Your task to perform on an android device: stop showing notifications on the lock screen Image 0: 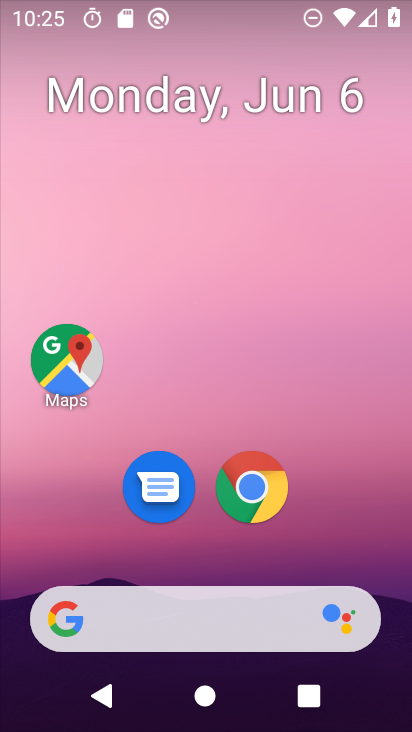
Step 0: drag from (404, 604) to (317, 45)
Your task to perform on an android device: stop showing notifications on the lock screen Image 1: 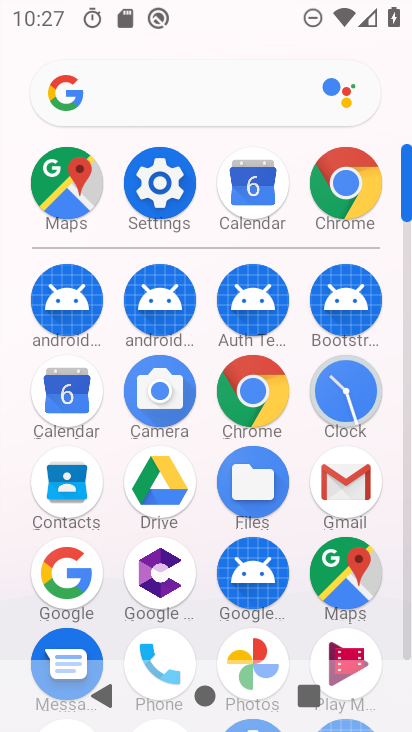
Step 1: click (136, 178)
Your task to perform on an android device: stop showing notifications on the lock screen Image 2: 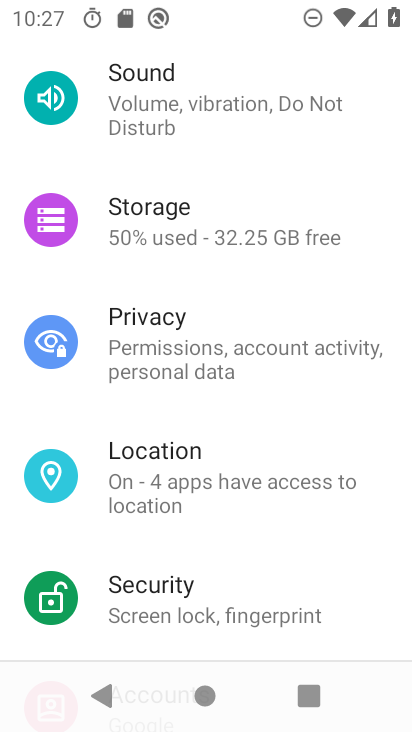
Step 2: drag from (230, 199) to (243, 617)
Your task to perform on an android device: stop showing notifications on the lock screen Image 3: 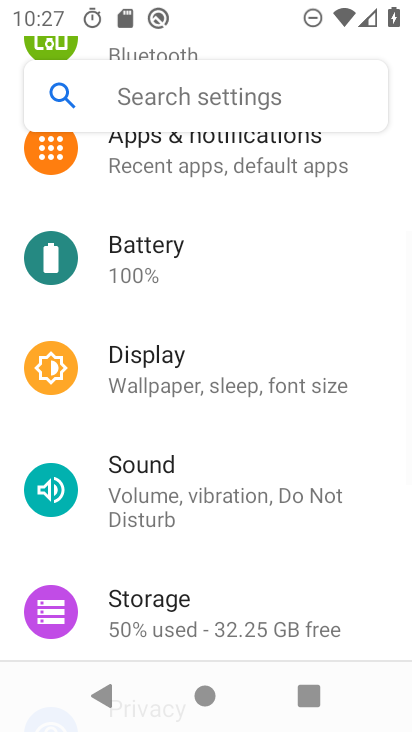
Step 3: drag from (213, 252) to (206, 585)
Your task to perform on an android device: stop showing notifications on the lock screen Image 4: 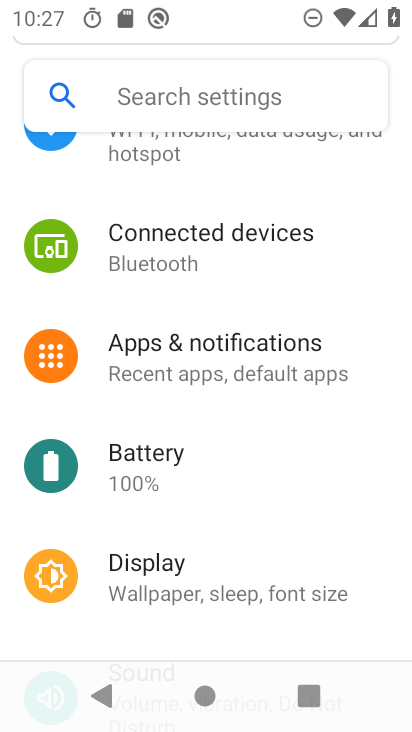
Step 4: click (229, 393)
Your task to perform on an android device: stop showing notifications on the lock screen Image 5: 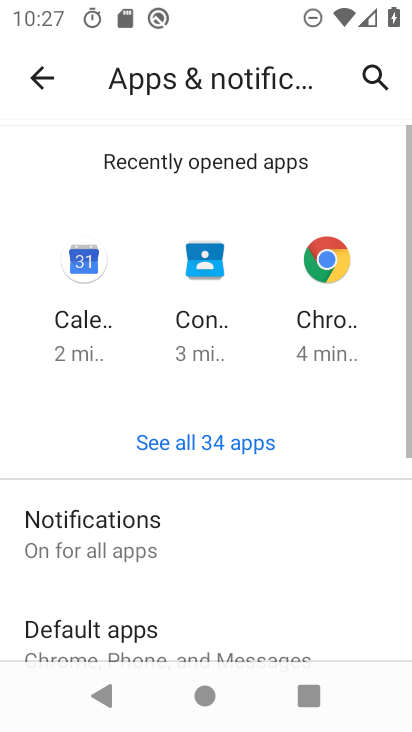
Step 5: click (157, 533)
Your task to perform on an android device: stop showing notifications on the lock screen Image 6: 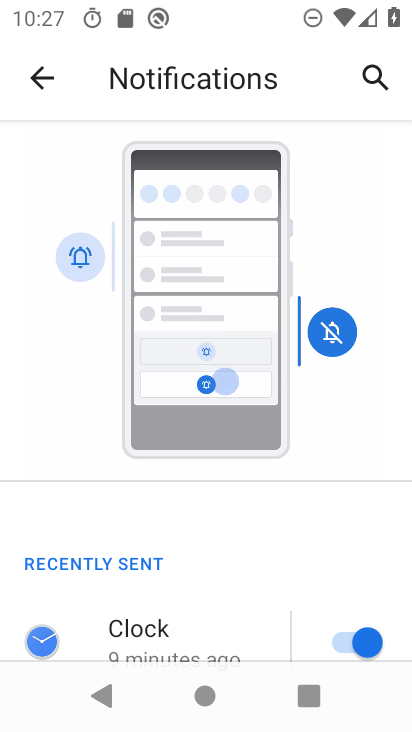
Step 6: drag from (62, 641) to (124, 105)
Your task to perform on an android device: stop showing notifications on the lock screen Image 7: 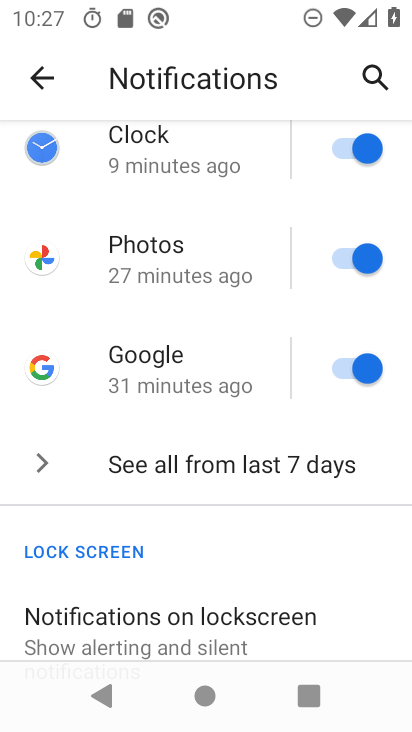
Step 7: click (163, 614)
Your task to perform on an android device: stop showing notifications on the lock screen Image 8: 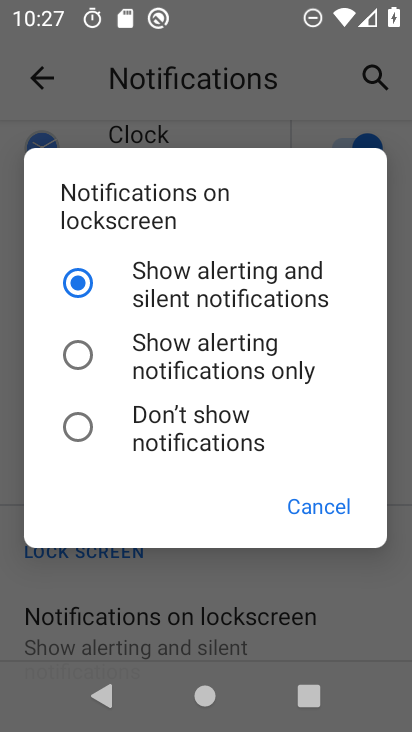
Step 8: click (85, 425)
Your task to perform on an android device: stop showing notifications on the lock screen Image 9: 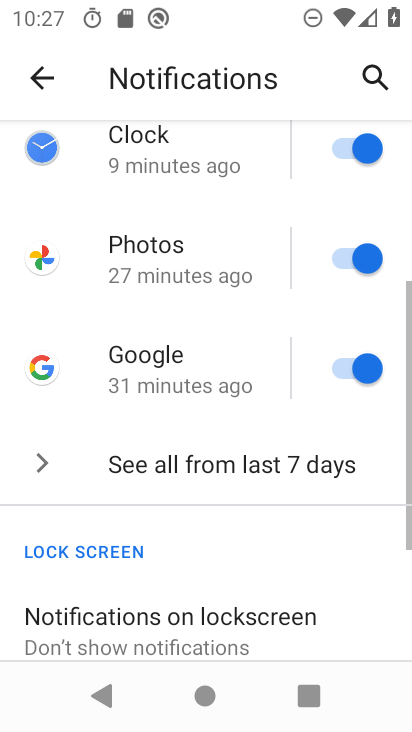
Step 9: task complete